Your task to perform on an android device: What's the weather going to be this weekend? Image 0: 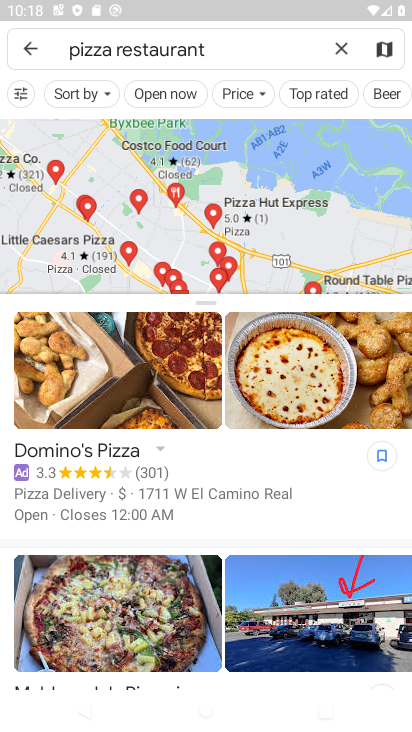
Step 0: press home button
Your task to perform on an android device: What's the weather going to be this weekend? Image 1: 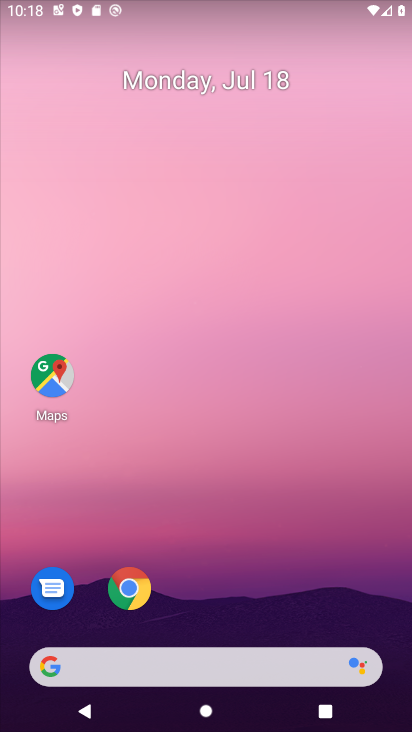
Step 1: drag from (226, 725) to (217, 191)
Your task to perform on an android device: What's the weather going to be this weekend? Image 2: 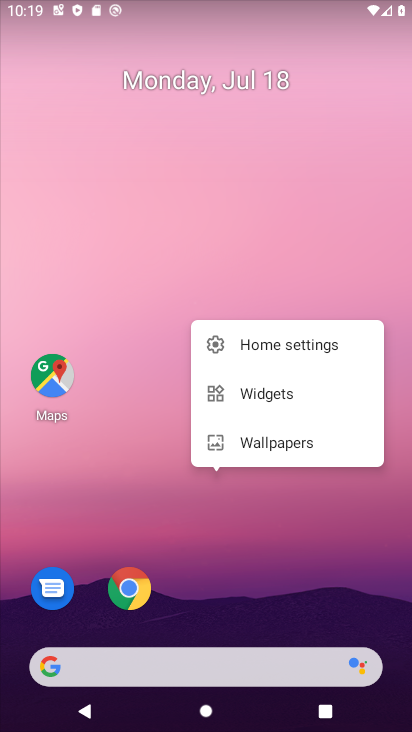
Step 2: click (183, 222)
Your task to perform on an android device: What's the weather going to be this weekend? Image 3: 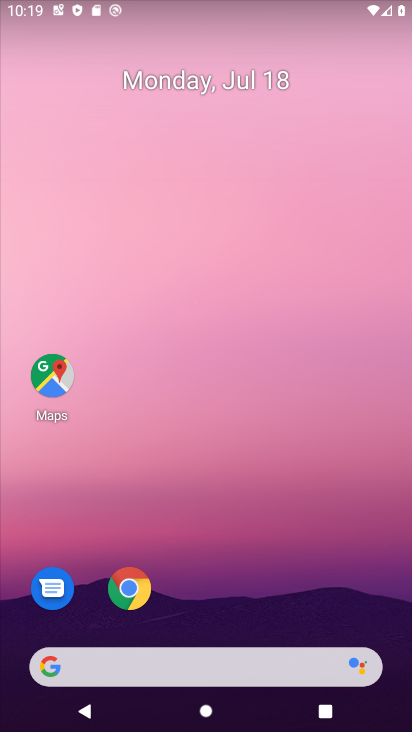
Step 3: drag from (241, 718) to (213, 139)
Your task to perform on an android device: What's the weather going to be this weekend? Image 4: 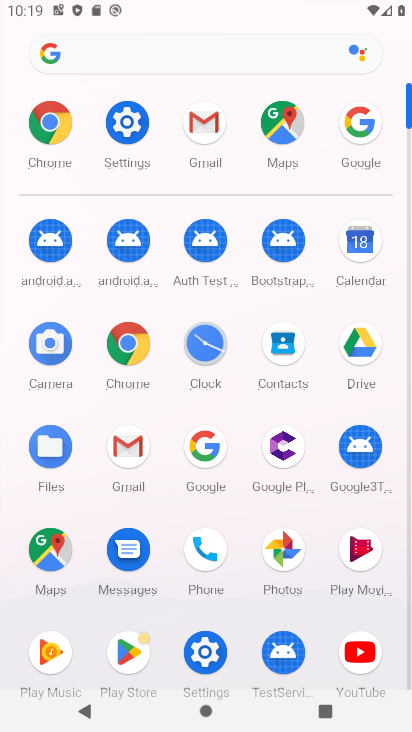
Step 4: click (359, 124)
Your task to perform on an android device: What's the weather going to be this weekend? Image 5: 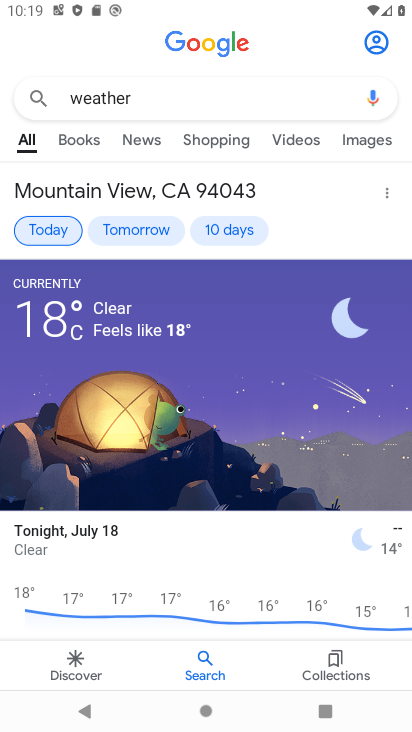
Step 5: click (238, 225)
Your task to perform on an android device: What's the weather going to be this weekend? Image 6: 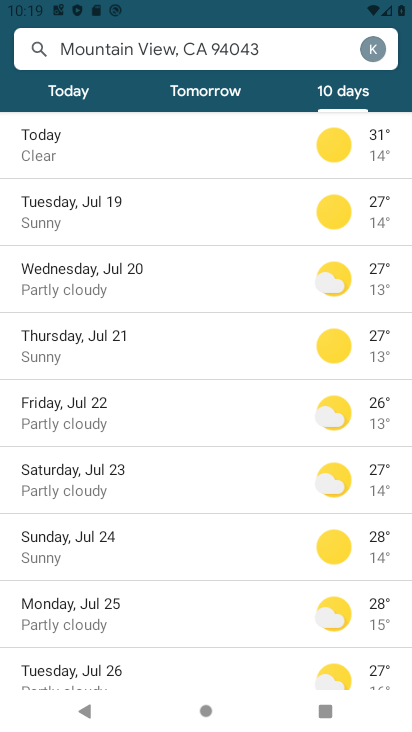
Step 6: click (86, 457)
Your task to perform on an android device: What's the weather going to be this weekend? Image 7: 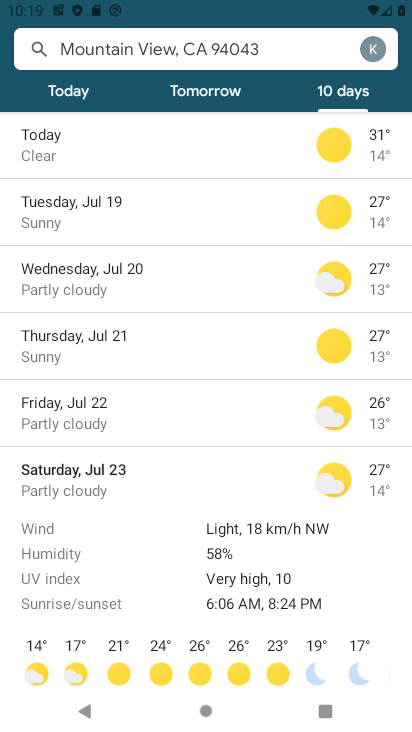
Step 7: task complete